Your task to perform on an android device: Search for seafood restaurants on Google Maps Image 0: 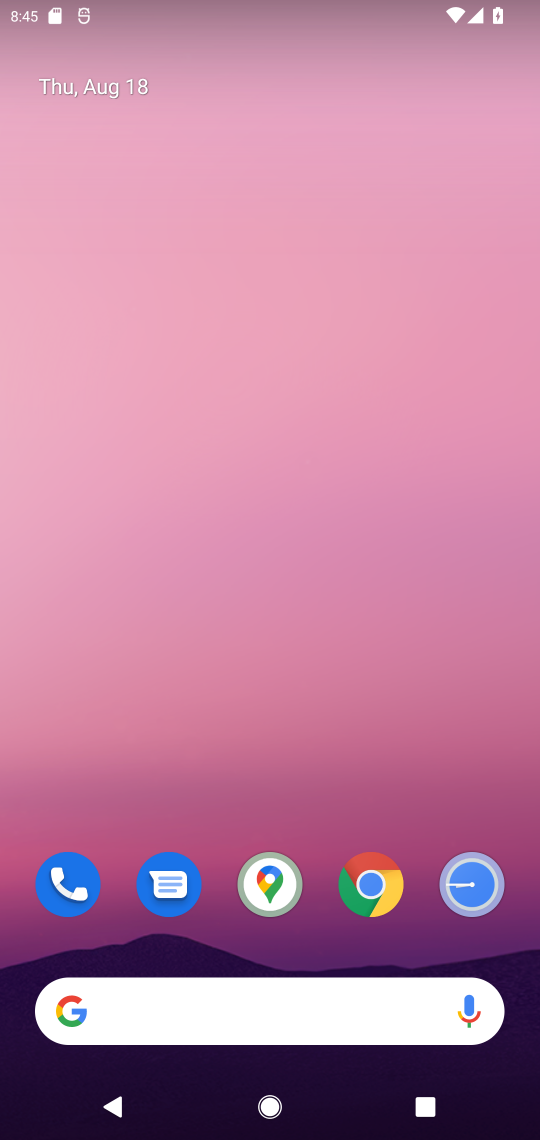
Step 0: click (281, 897)
Your task to perform on an android device: Search for seafood restaurants on Google Maps Image 1: 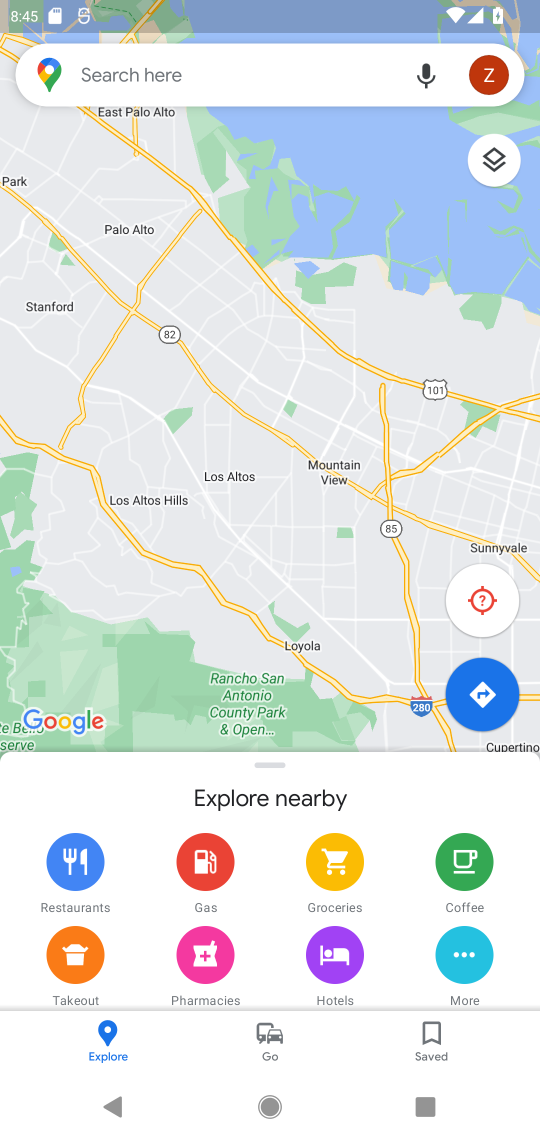
Step 1: click (290, 105)
Your task to perform on an android device: Search for seafood restaurants on Google Maps Image 2: 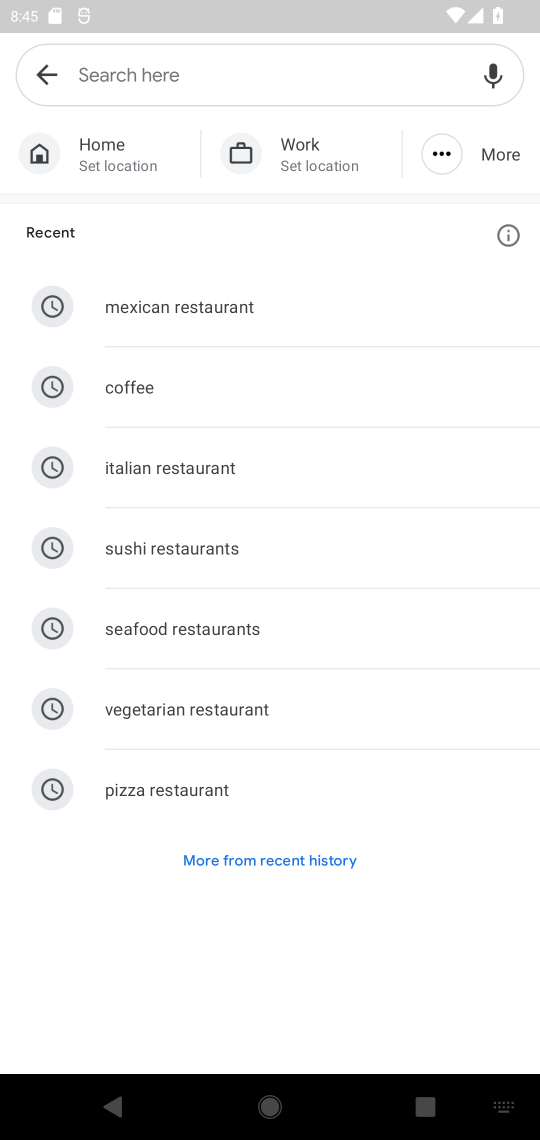
Step 2: click (287, 644)
Your task to perform on an android device: Search for seafood restaurants on Google Maps Image 3: 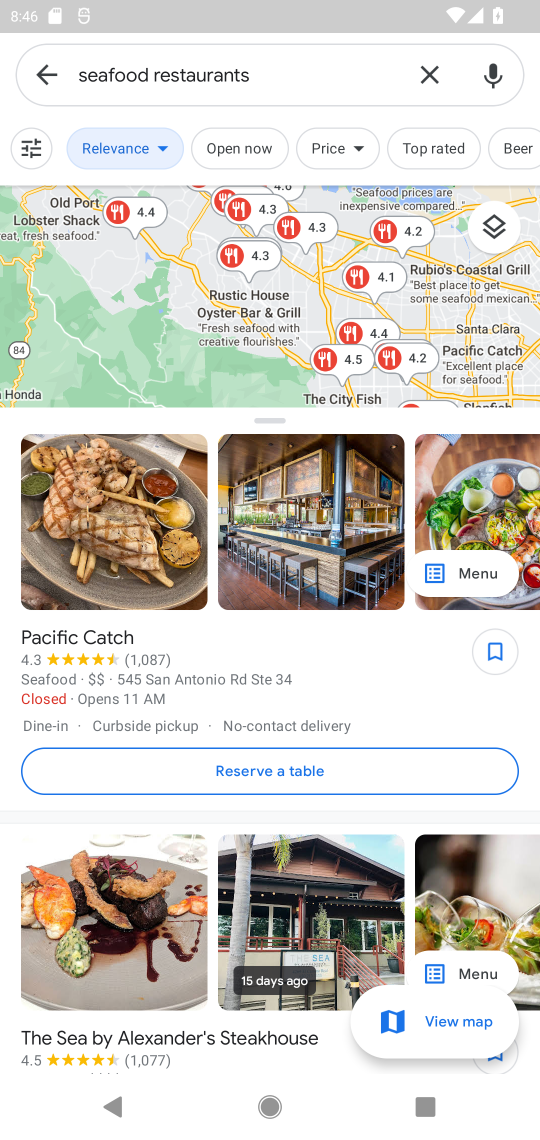
Step 3: task complete